Your task to perform on an android device: refresh tabs in the chrome app Image 0: 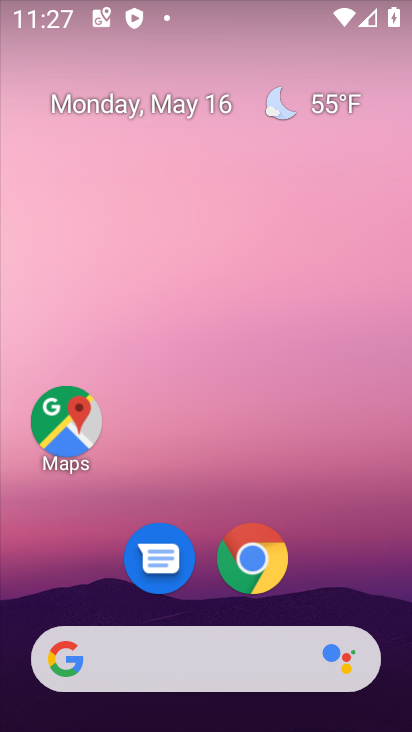
Step 0: click (250, 561)
Your task to perform on an android device: refresh tabs in the chrome app Image 1: 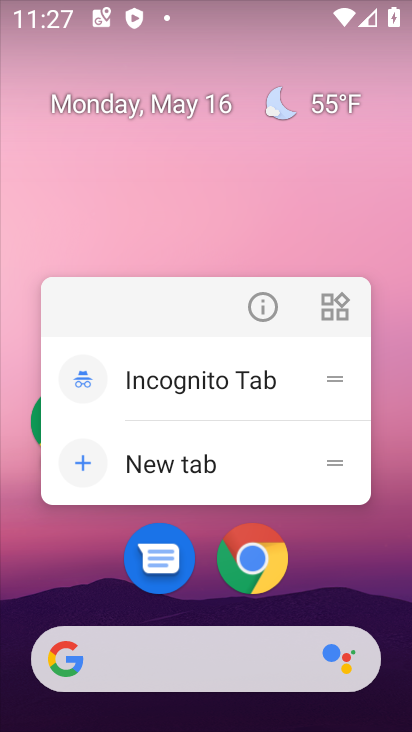
Step 1: click (250, 561)
Your task to perform on an android device: refresh tabs in the chrome app Image 2: 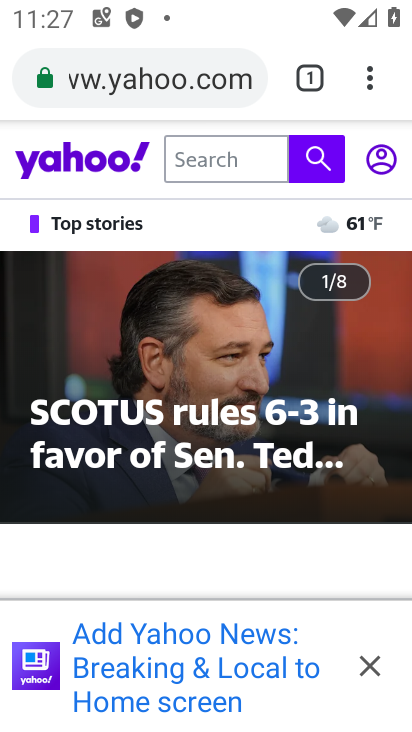
Step 2: click (360, 79)
Your task to perform on an android device: refresh tabs in the chrome app Image 3: 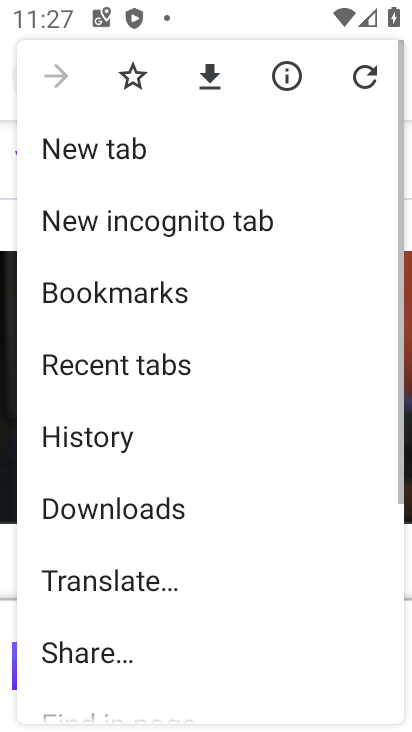
Step 3: click (361, 74)
Your task to perform on an android device: refresh tabs in the chrome app Image 4: 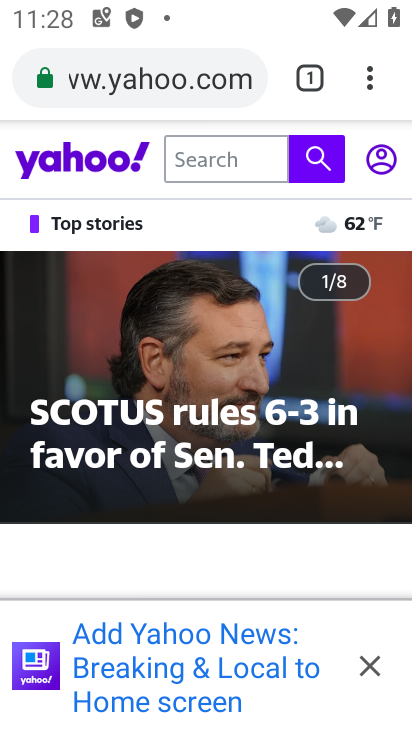
Step 4: task complete